Your task to perform on an android device: toggle priority inbox in the gmail app Image 0: 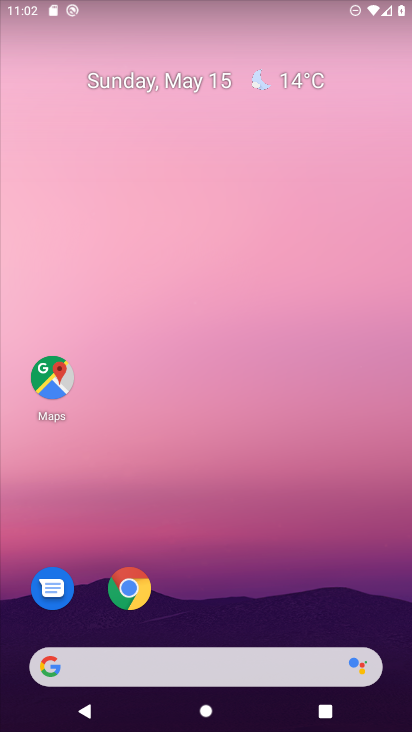
Step 0: click (298, 373)
Your task to perform on an android device: toggle priority inbox in the gmail app Image 1: 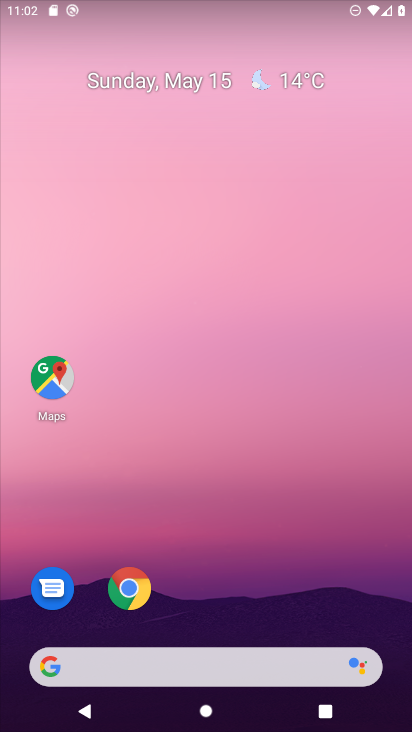
Step 1: drag from (197, 616) to (250, 1)
Your task to perform on an android device: toggle priority inbox in the gmail app Image 2: 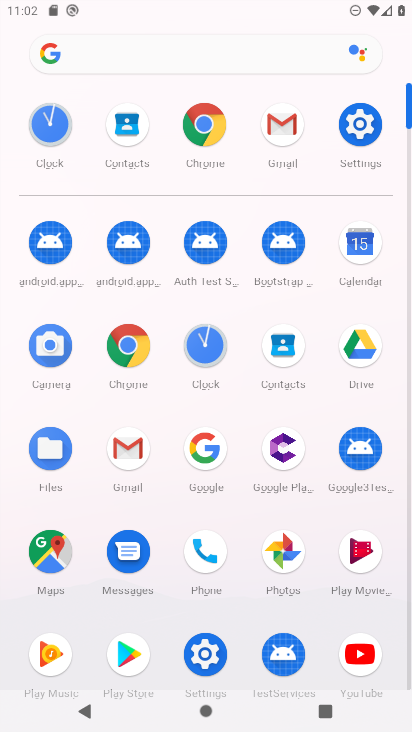
Step 2: click (136, 459)
Your task to perform on an android device: toggle priority inbox in the gmail app Image 3: 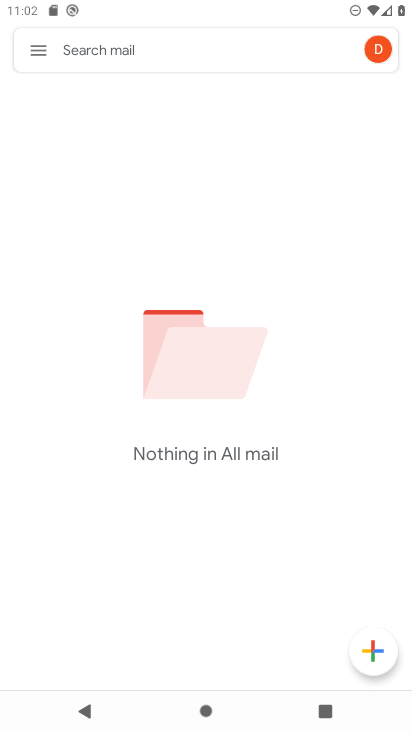
Step 3: click (35, 47)
Your task to perform on an android device: toggle priority inbox in the gmail app Image 4: 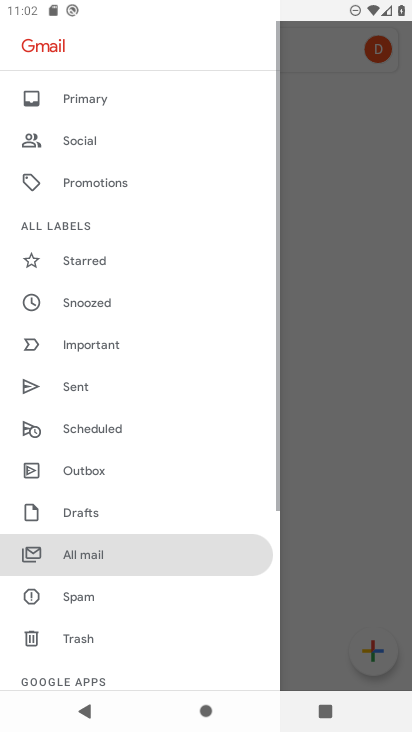
Step 4: drag from (107, 630) to (185, 261)
Your task to perform on an android device: toggle priority inbox in the gmail app Image 5: 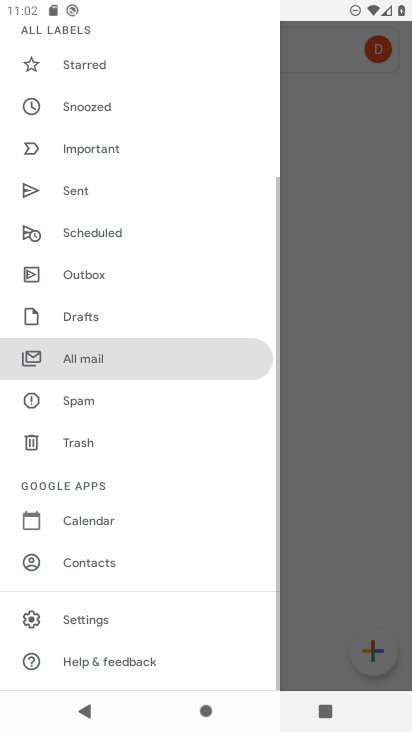
Step 5: click (87, 630)
Your task to perform on an android device: toggle priority inbox in the gmail app Image 6: 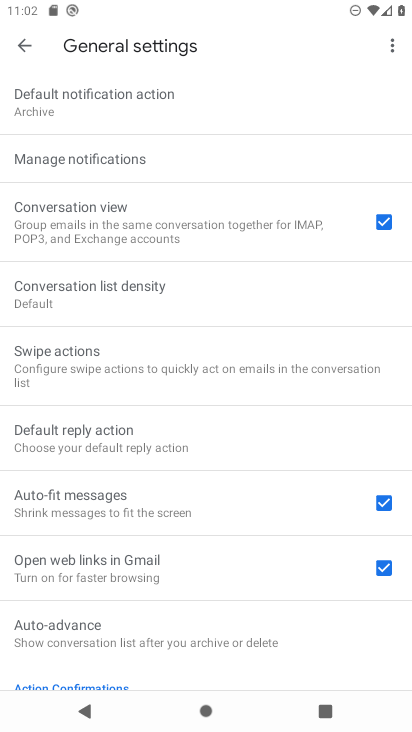
Step 6: click (21, 47)
Your task to perform on an android device: toggle priority inbox in the gmail app Image 7: 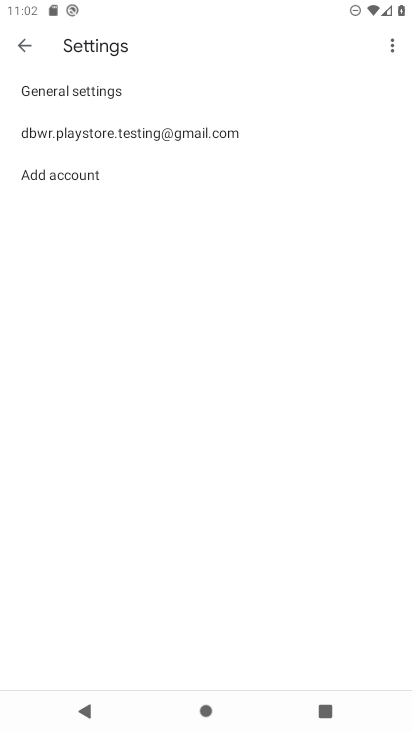
Step 7: click (169, 134)
Your task to perform on an android device: toggle priority inbox in the gmail app Image 8: 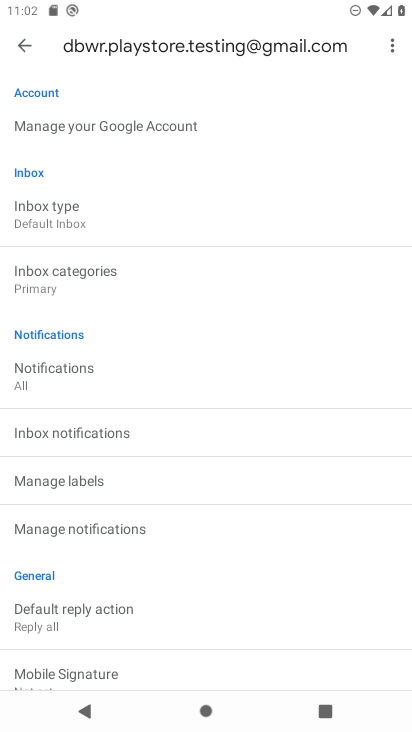
Step 8: click (81, 220)
Your task to perform on an android device: toggle priority inbox in the gmail app Image 9: 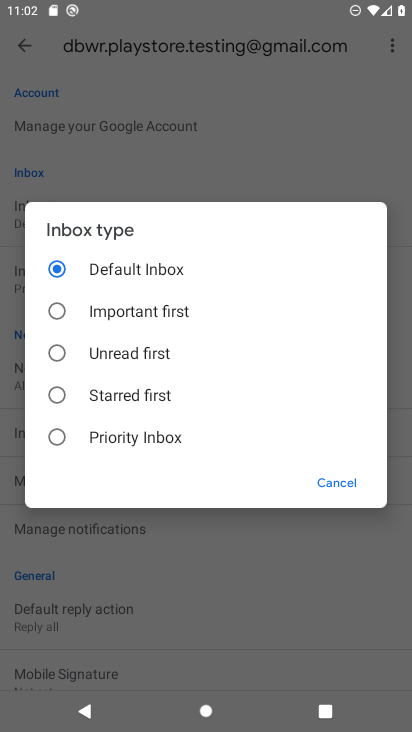
Step 9: click (86, 435)
Your task to perform on an android device: toggle priority inbox in the gmail app Image 10: 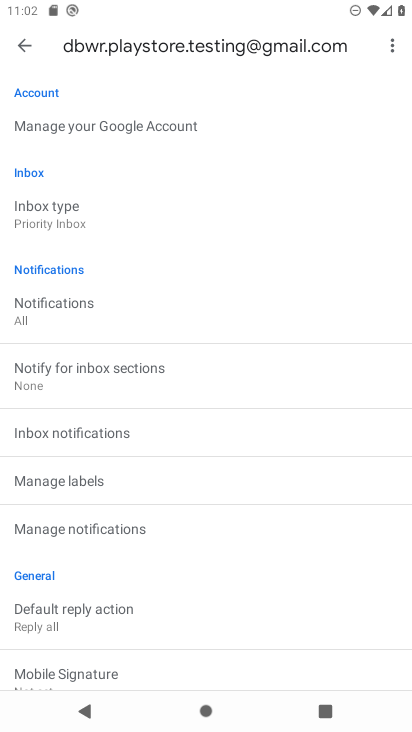
Step 10: task complete